Your task to perform on an android device: Show me popular videos on Youtube Image 0: 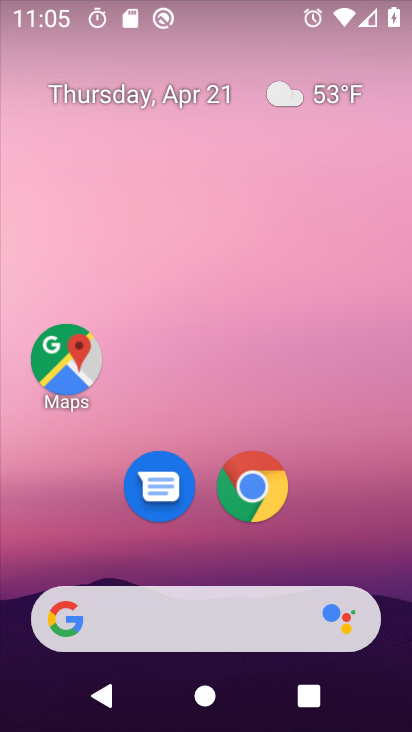
Step 0: drag from (388, 570) to (345, 163)
Your task to perform on an android device: Show me popular videos on Youtube Image 1: 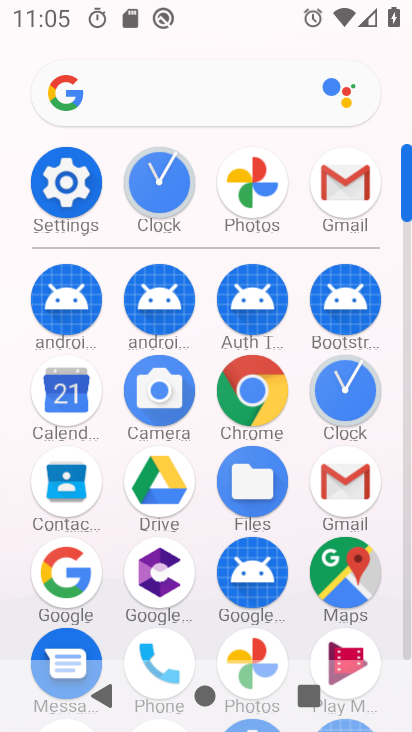
Step 1: drag from (404, 165) to (399, 86)
Your task to perform on an android device: Show me popular videos on Youtube Image 2: 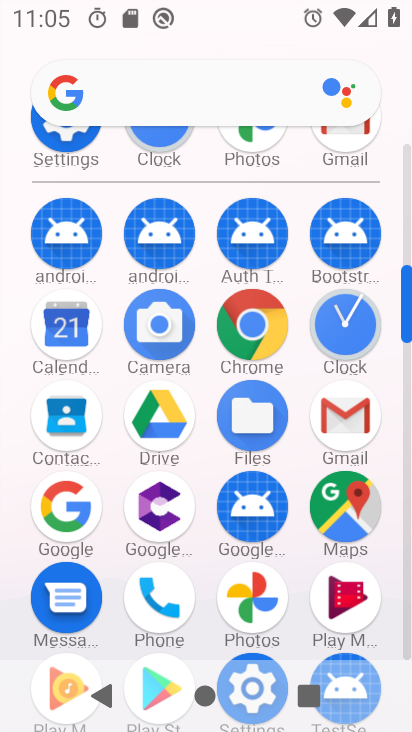
Step 2: drag from (407, 278) to (401, 143)
Your task to perform on an android device: Show me popular videos on Youtube Image 3: 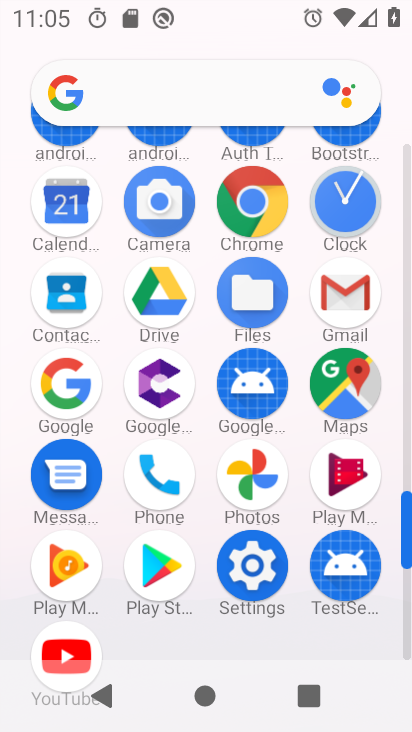
Step 3: click (57, 638)
Your task to perform on an android device: Show me popular videos on Youtube Image 4: 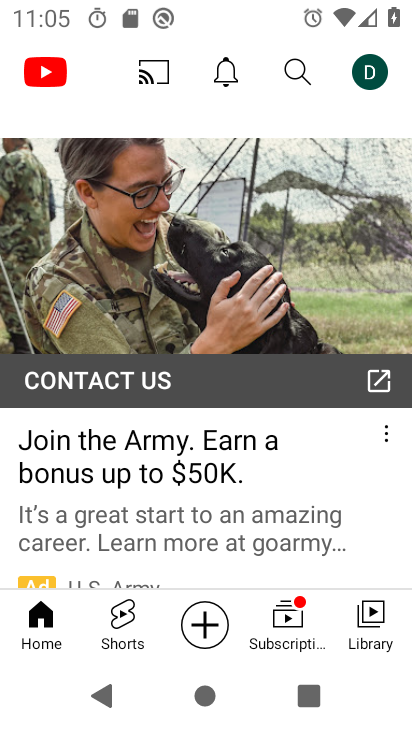
Step 4: click (374, 618)
Your task to perform on an android device: Show me popular videos on Youtube Image 5: 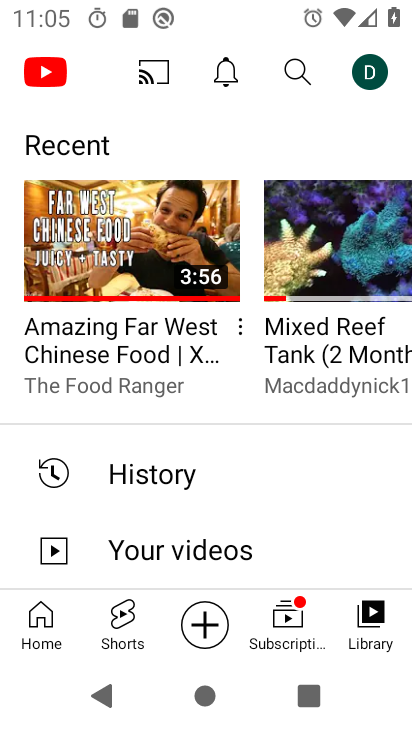
Step 5: click (290, 66)
Your task to perform on an android device: Show me popular videos on Youtube Image 6: 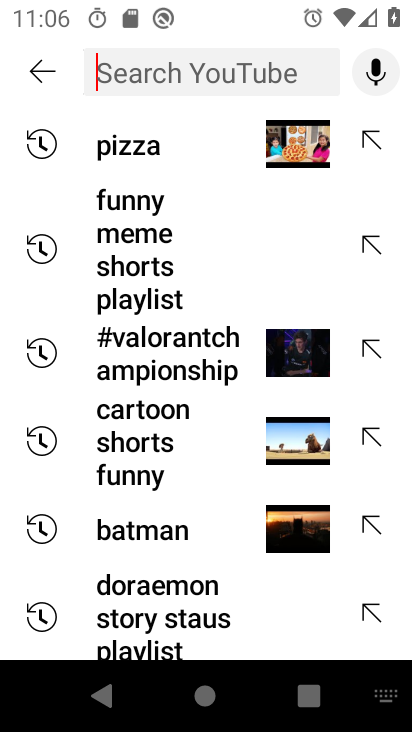
Step 6: type "popular videos "
Your task to perform on an android device: Show me popular videos on Youtube Image 7: 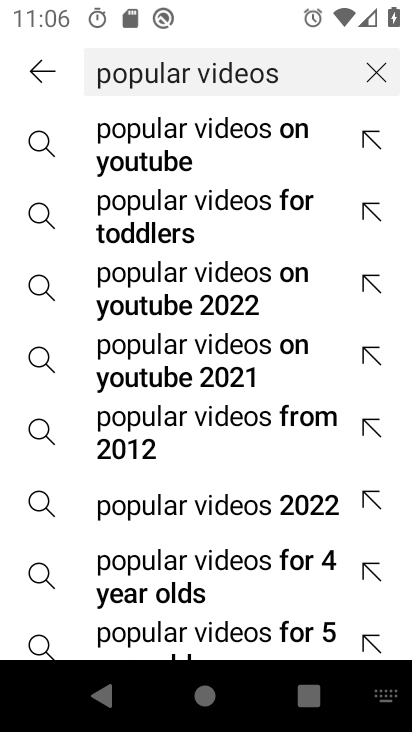
Step 7: click (175, 126)
Your task to perform on an android device: Show me popular videos on Youtube Image 8: 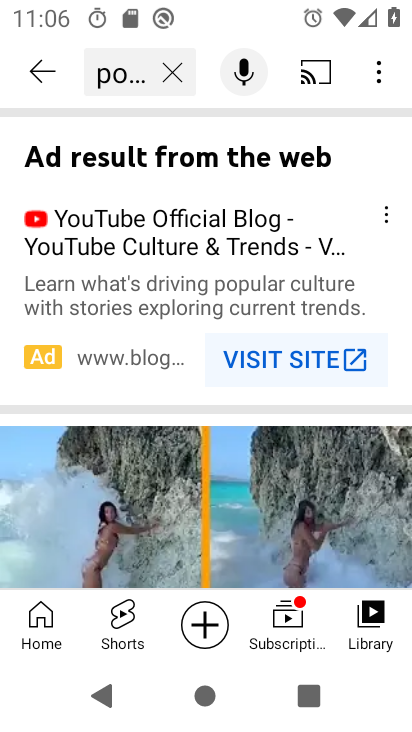
Step 8: drag from (230, 476) to (224, 138)
Your task to perform on an android device: Show me popular videos on Youtube Image 9: 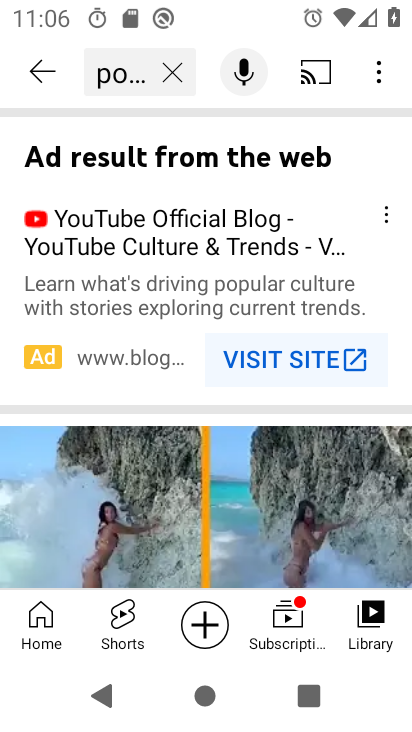
Step 9: drag from (276, 266) to (271, 200)
Your task to perform on an android device: Show me popular videos on Youtube Image 10: 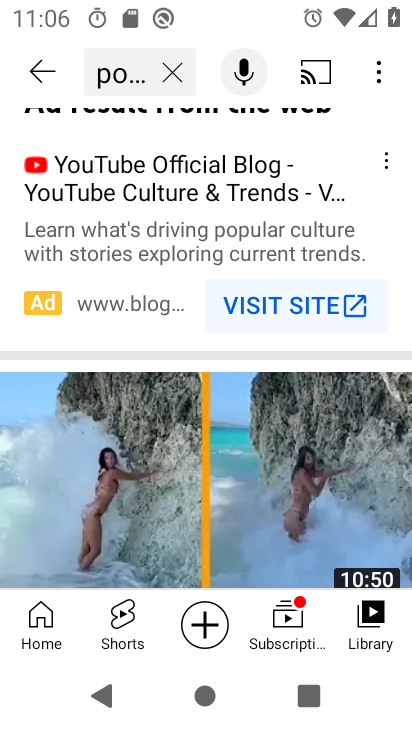
Step 10: drag from (272, 453) to (267, 289)
Your task to perform on an android device: Show me popular videos on Youtube Image 11: 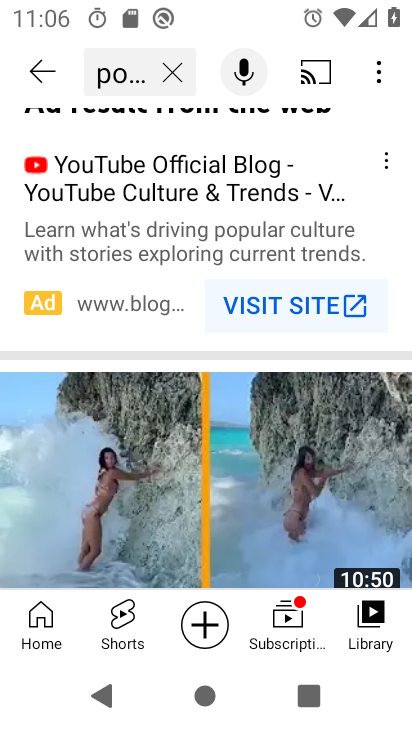
Step 11: click (254, 194)
Your task to perform on an android device: Show me popular videos on Youtube Image 12: 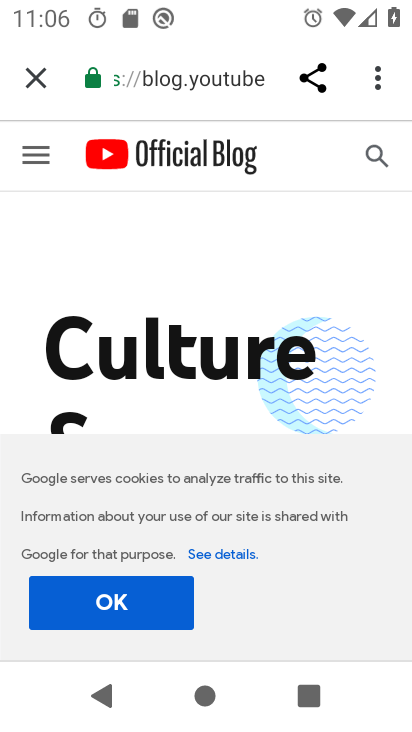
Step 12: task complete